Your task to perform on an android device: open sync settings in chrome Image 0: 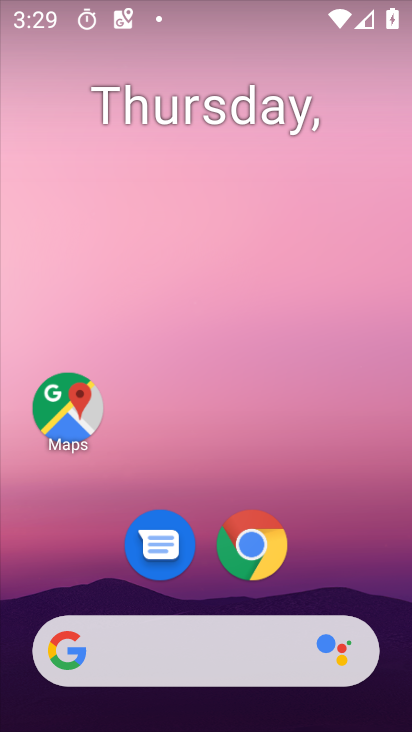
Step 0: click (248, 545)
Your task to perform on an android device: open sync settings in chrome Image 1: 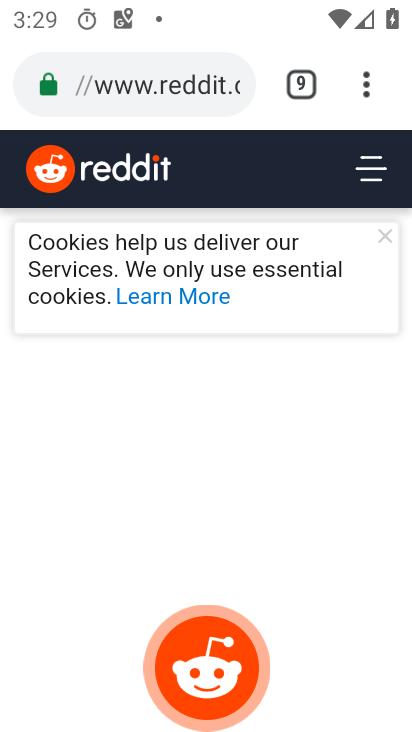
Step 1: click (364, 94)
Your task to perform on an android device: open sync settings in chrome Image 2: 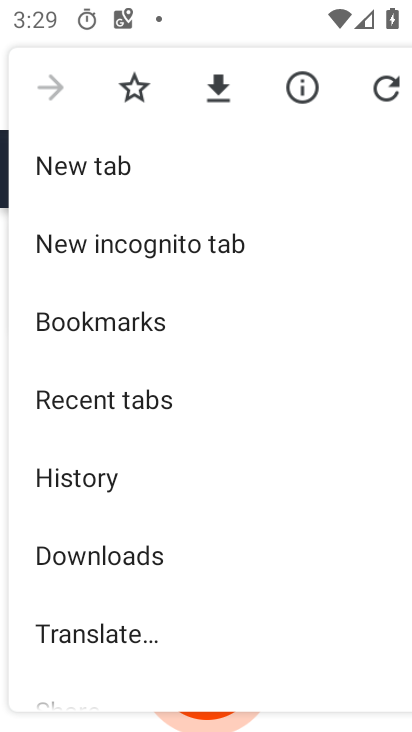
Step 2: drag from (85, 642) to (99, 234)
Your task to perform on an android device: open sync settings in chrome Image 3: 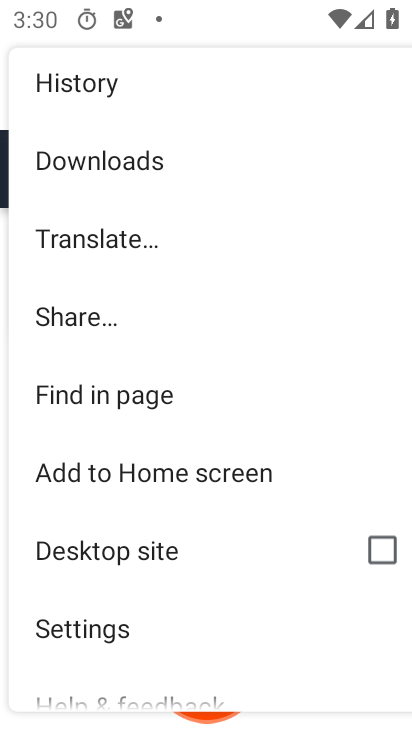
Step 3: drag from (174, 617) to (174, 130)
Your task to perform on an android device: open sync settings in chrome Image 4: 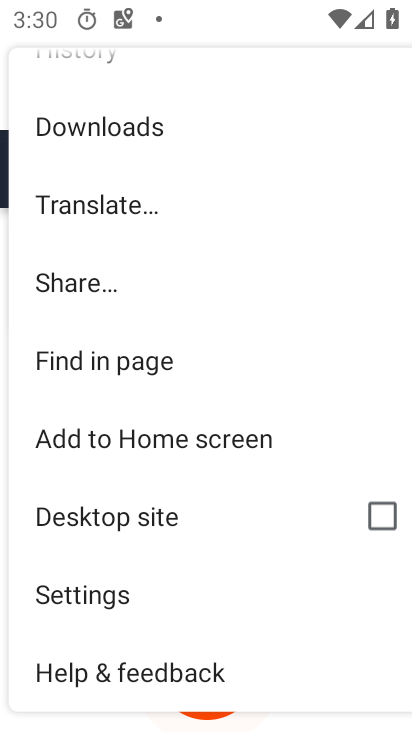
Step 4: click (90, 584)
Your task to perform on an android device: open sync settings in chrome Image 5: 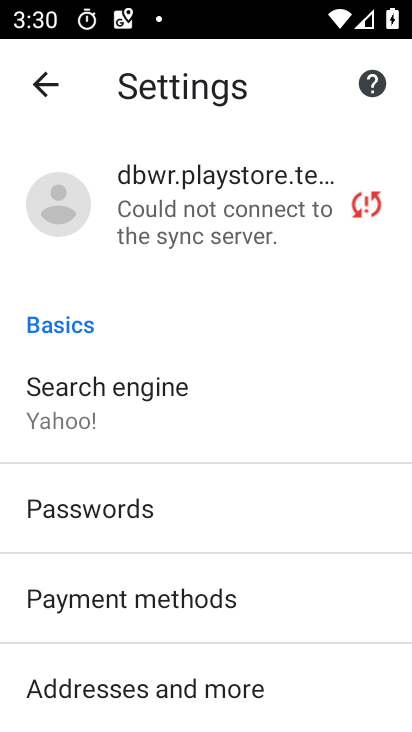
Step 5: drag from (114, 662) to (153, 250)
Your task to perform on an android device: open sync settings in chrome Image 6: 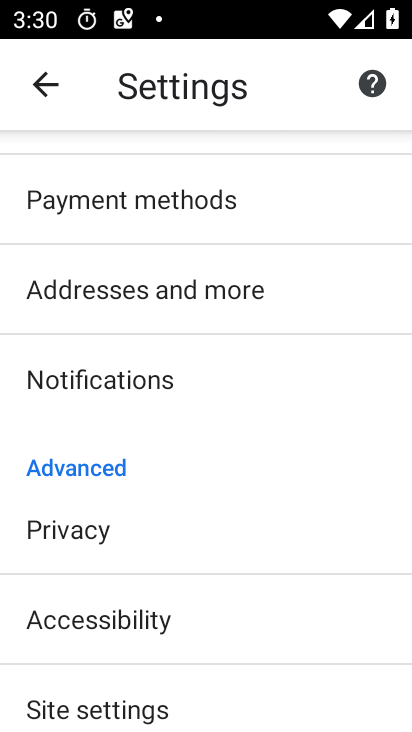
Step 6: drag from (127, 655) to (138, 306)
Your task to perform on an android device: open sync settings in chrome Image 7: 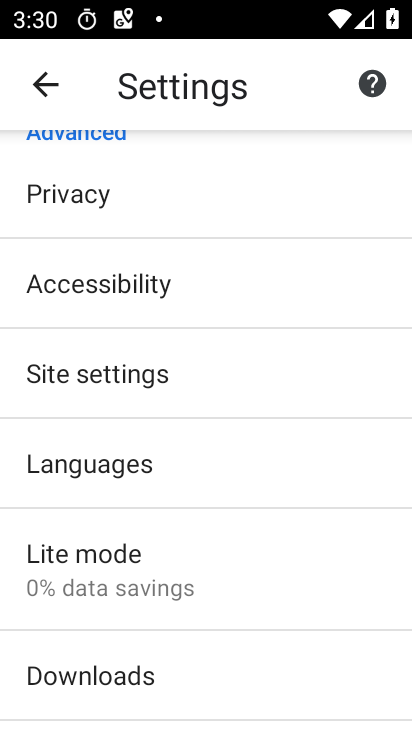
Step 7: drag from (89, 651) to (121, 362)
Your task to perform on an android device: open sync settings in chrome Image 8: 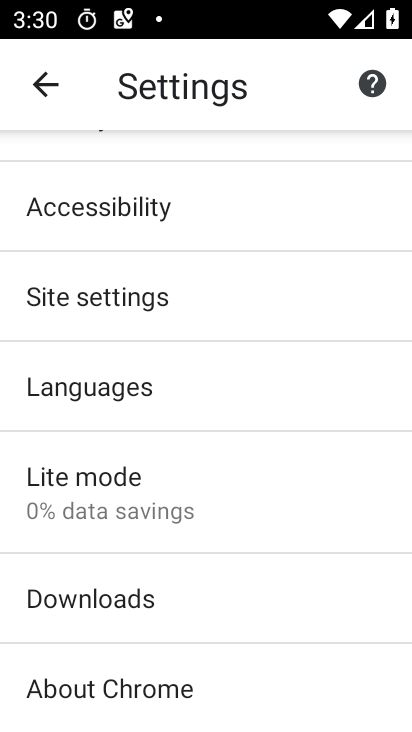
Step 8: drag from (120, 644) to (133, 465)
Your task to perform on an android device: open sync settings in chrome Image 9: 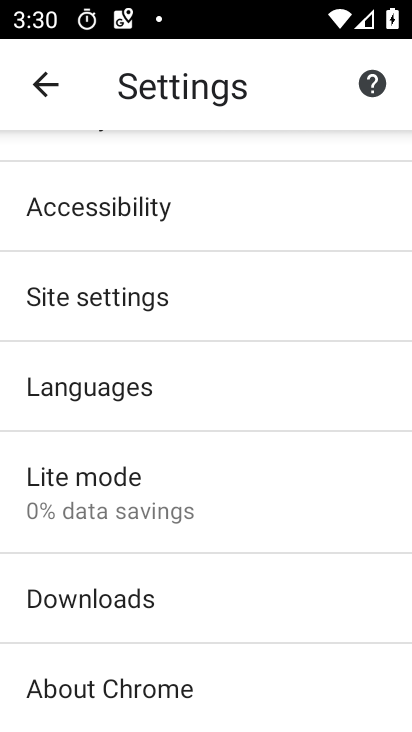
Step 9: click (103, 297)
Your task to perform on an android device: open sync settings in chrome Image 10: 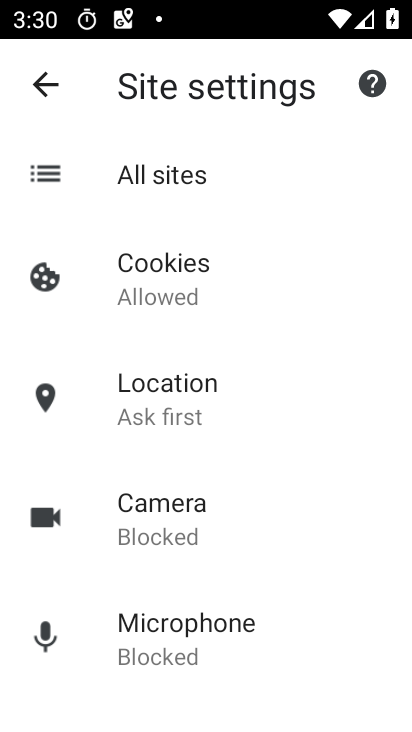
Step 10: drag from (134, 675) to (146, 271)
Your task to perform on an android device: open sync settings in chrome Image 11: 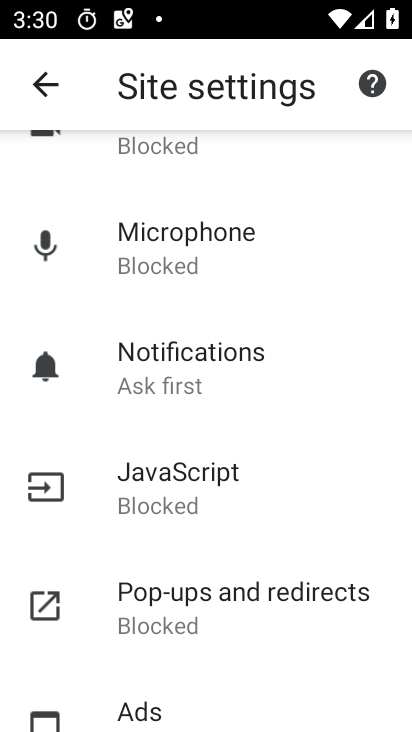
Step 11: drag from (167, 662) to (164, 278)
Your task to perform on an android device: open sync settings in chrome Image 12: 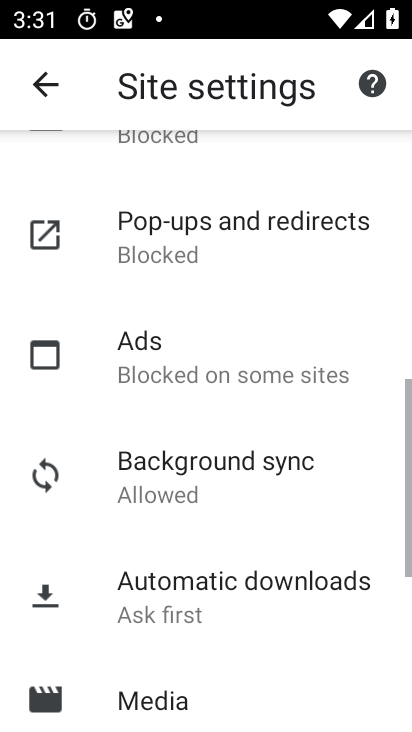
Step 12: drag from (197, 660) to (204, 258)
Your task to perform on an android device: open sync settings in chrome Image 13: 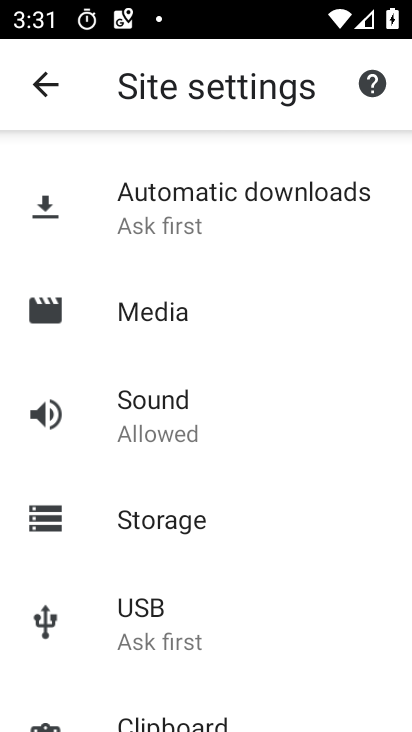
Step 13: drag from (224, 231) to (228, 613)
Your task to perform on an android device: open sync settings in chrome Image 14: 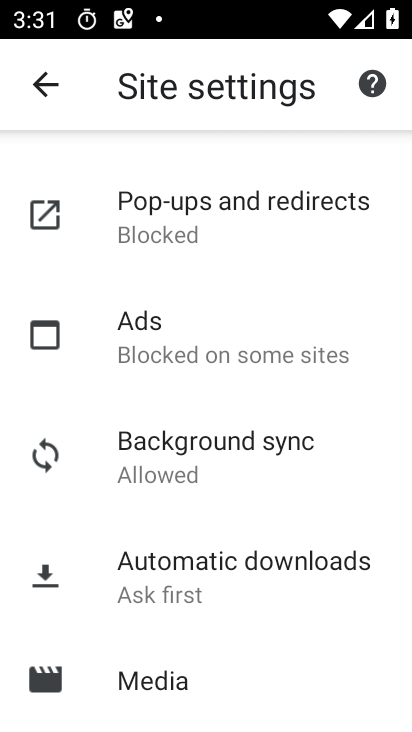
Step 14: click (205, 441)
Your task to perform on an android device: open sync settings in chrome Image 15: 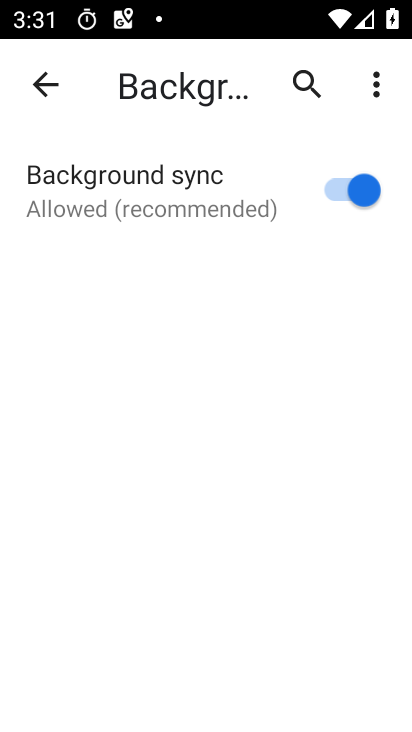
Step 15: task complete